Your task to perform on an android device: turn on data saver in the chrome app Image 0: 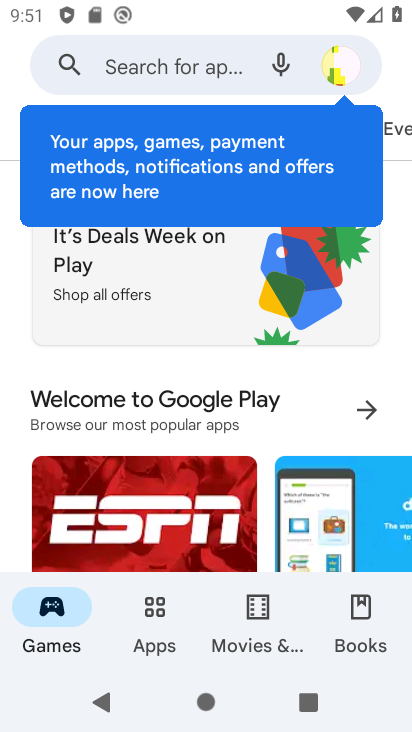
Step 0: press home button
Your task to perform on an android device: turn on data saver in the chrome app Image 1: 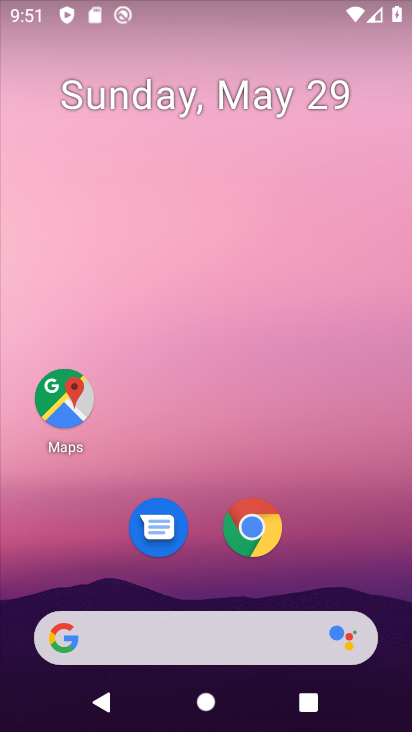
Step 1: click (251, 524)
Your task to perform on an android device: turn on data saver in the chrome app Image 2: 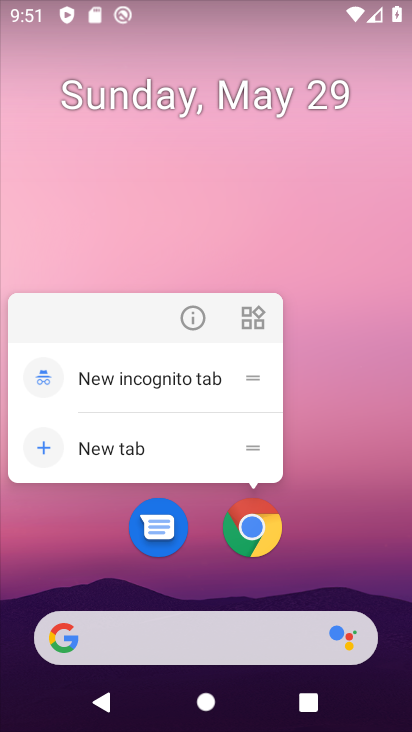
Step 2: click (253, 528)
Your task to perform on an android device: turn on data saver in the chrome app Image 3: 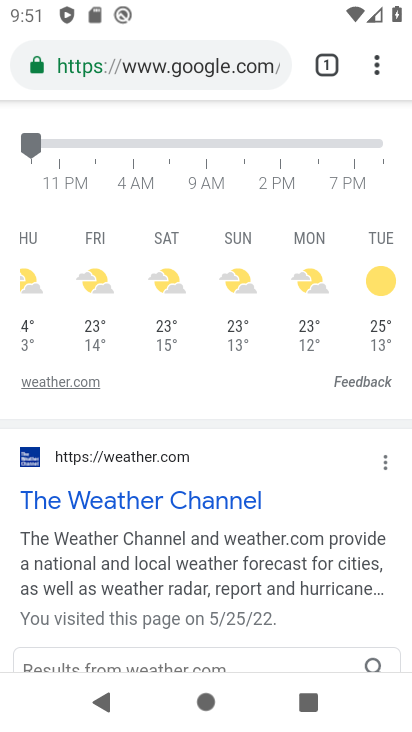
Step 3: drag from (382, 66) to (208, 576)
Your task to perform on an android device: turn on data saver in the chrome app Image 4: 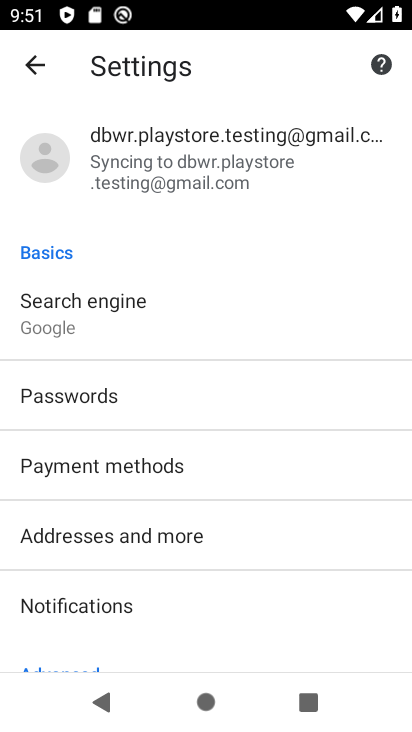
Step 4: drag from (212, 568) to (313, 181)
Your task to perform on an android device: turn on data saver in the chrome app Image 5: 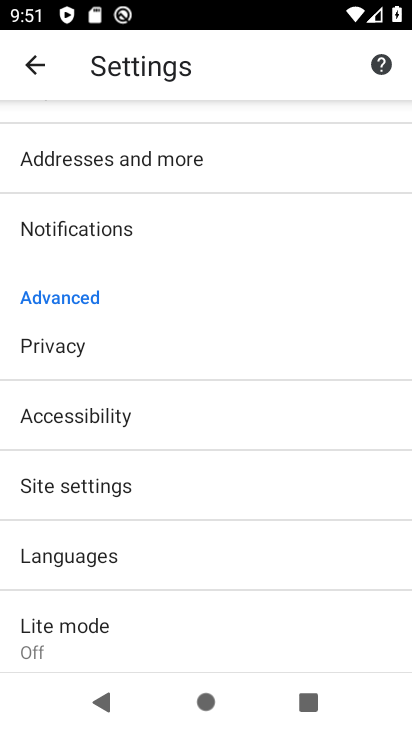
Step 5: click (179, 641)
Your task to perform on an android device: turn on data saver in the chrome app Image 6: 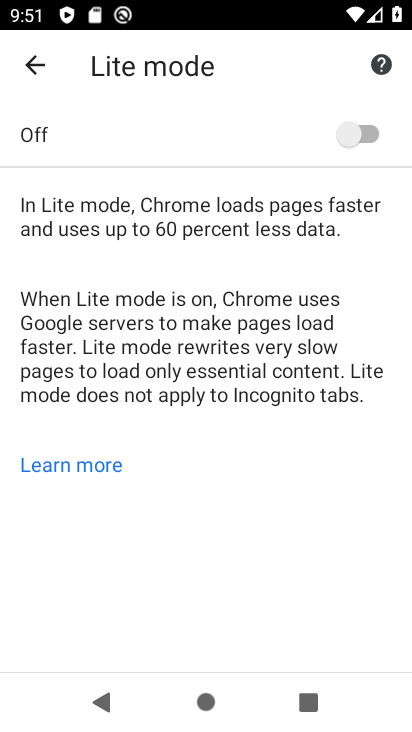
Step 6: click (360, 123)
Your task to perform on an android device: turn on data saver in the chrome app Image 7: 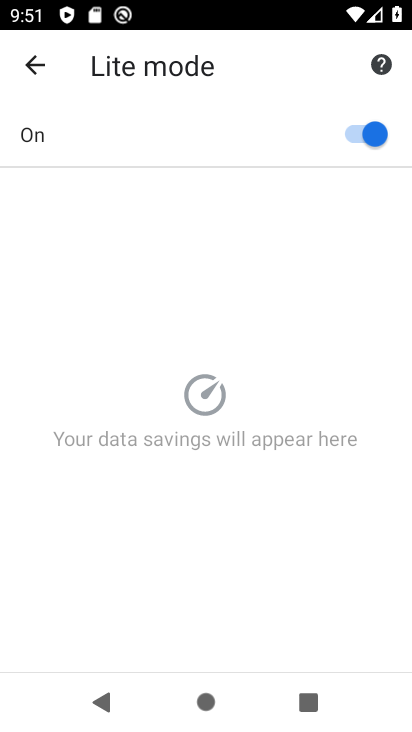
Step 7: task complete